Your task to perform on an android device: add a label to a message in the gmail app Image 0: 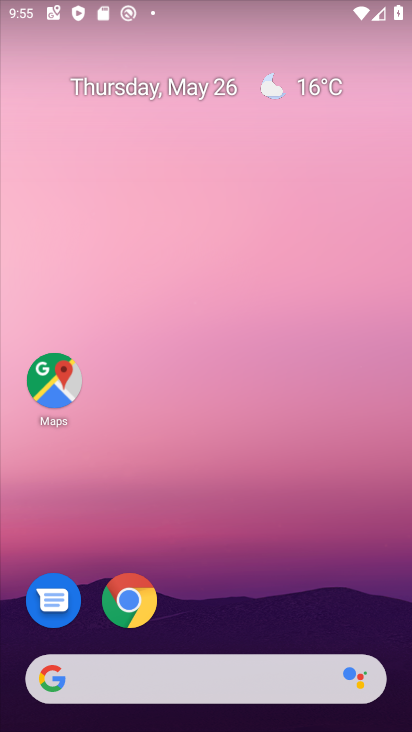
Step 0: drag from (224, 631) to (217, 0)
Your task to perform on an android device: add a label to a message in the gmail app Image 1: 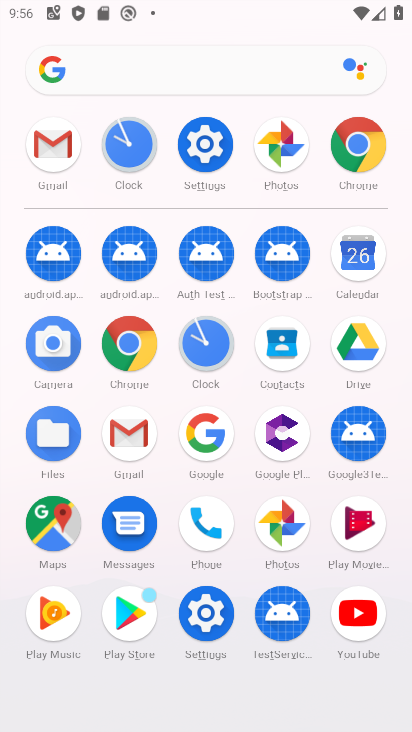
Step 1: click (131, 442)
Your task to perform on an android device: add a label to a message in the gmail app Image 2: 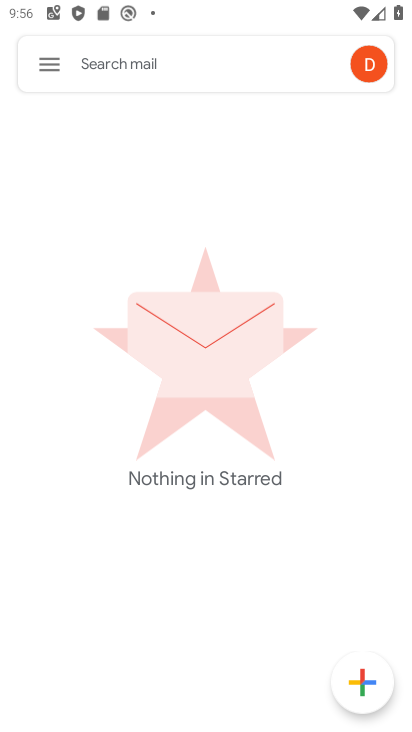
Step 2: click (56, 71)
Your task to perform on an android device: add a label to a message in the gmail app Image 3: 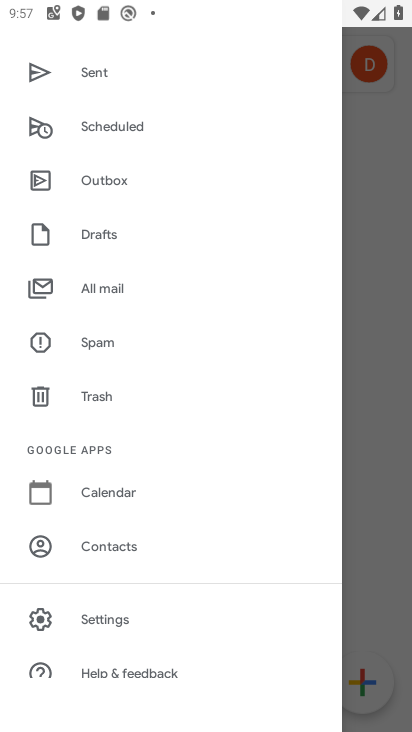
Step 3: click (60, 304)
Your task to perform on an android device: add a label to a message in the gmail app Image 4: 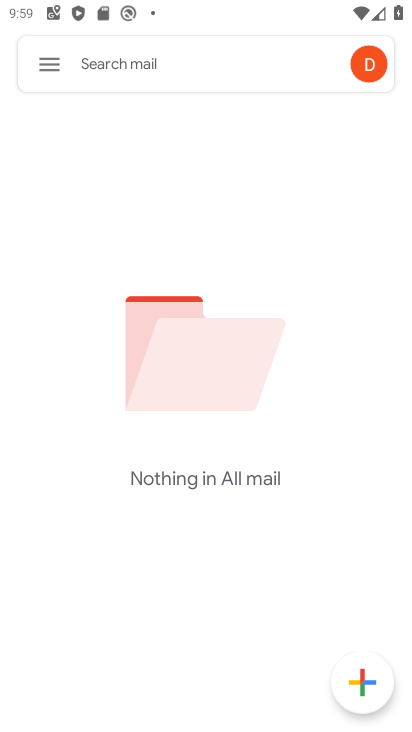
Step 4: task complete